Your task to perform on an android device: Open network settings Image 0: 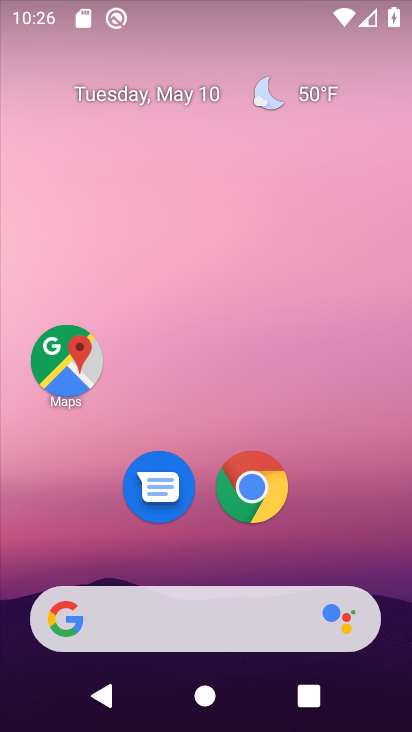
Step 0: drag from (326, 533) to (375, 136)
Your task to perform on an android device: Open network settings Image 1: 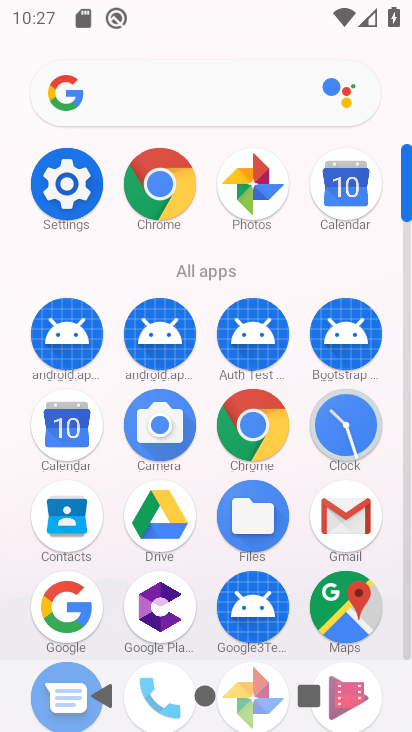
Step 1: click (82, 196)
Your task to perform on an android device: Open network settings Image 2: 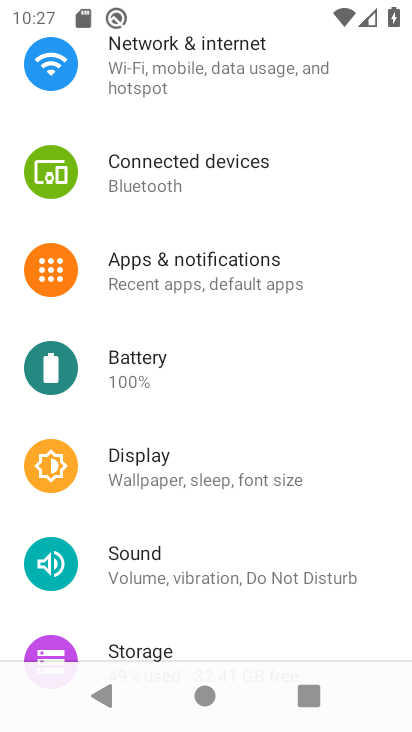
Step 2: drag from (118, 188) to (146, 528)
Your task to perform on an android device: Open network settings Image 3: 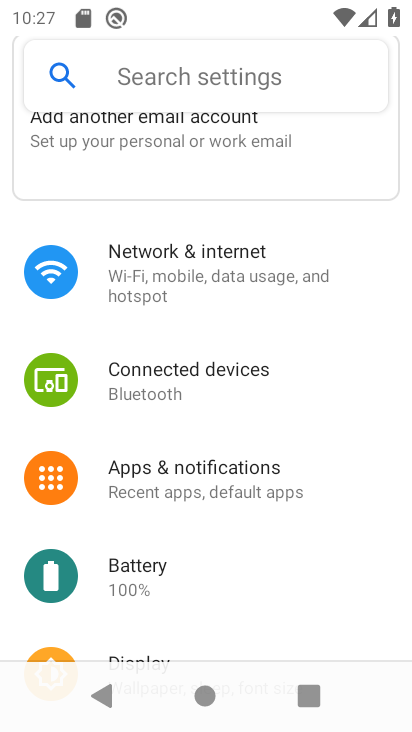
Step 3: drag from (218, 236) to (254, 397)
Your task to perform on an android device: Open network settings Image 4: 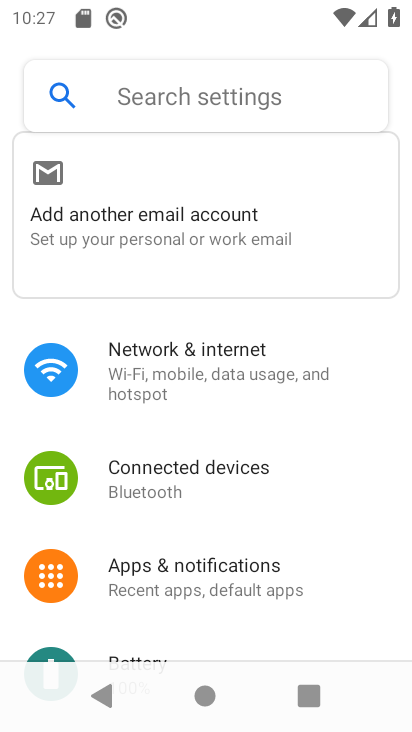
Step 4: click (215, 382)
Your task to perform on an android device: Open network settings Image 5: 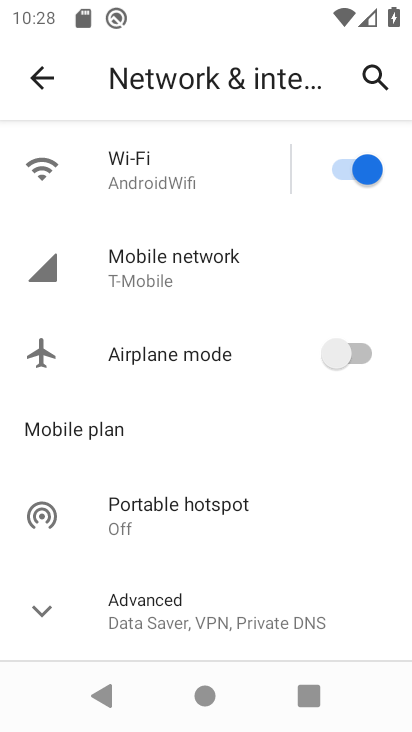
Step 5: task complete